Your task to perform on an android device: toggle priority inbox in the gmail app Image 0: 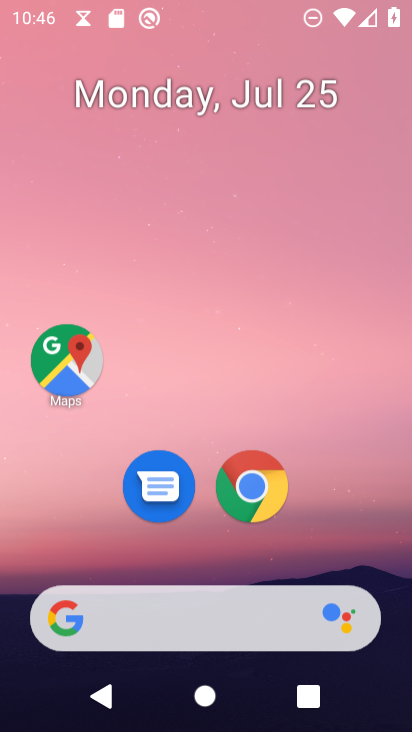
Step 0: drag from (268, 217) to (324, 6)
Your task to perform on an android device: toggle priority inbox in the gmail app Image 1: 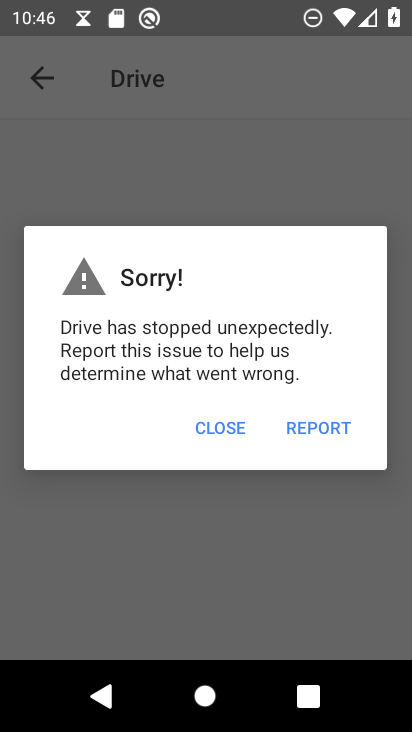
Step 1: click (239, 419)
Your task to perform on an android device: toggle priority inbox in the gmail app Image 2: 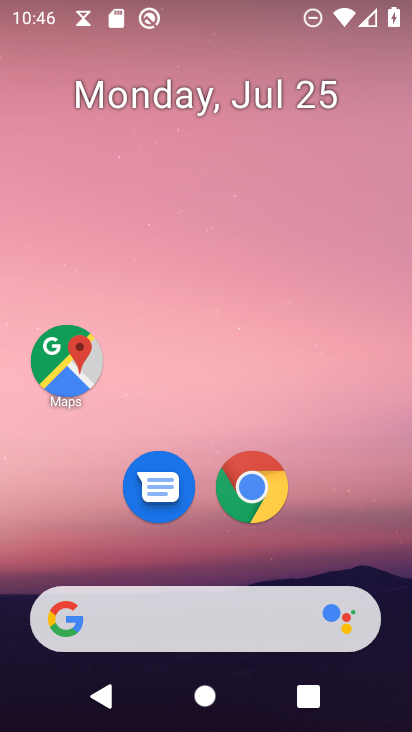
Step 2: drag from (200, 520) to (225, 1)
Your task to perform on an android device: toggle priority inbox in the gmail app Image 3: 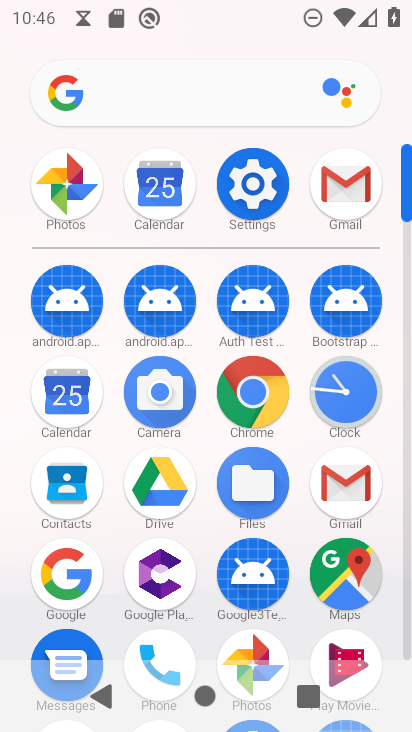
Step 3: click (348, 181)
Your task to perform on an android device: toggle priority inbox in the gmail app Image 4: 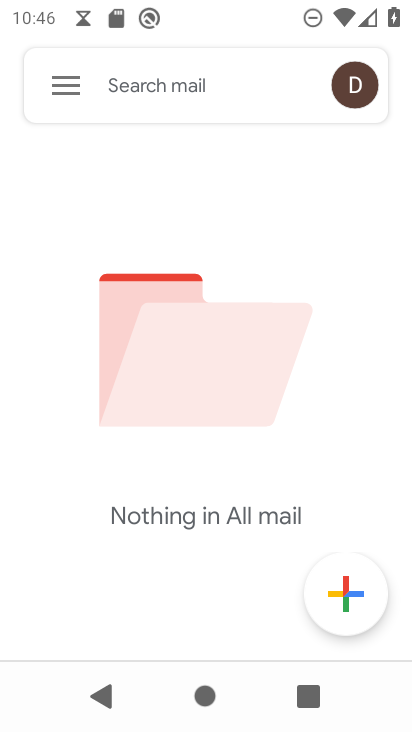
Step 4: click (75, 88)
Your task to perform on an android device: toggle priority inbox in the gmail app Image 5: 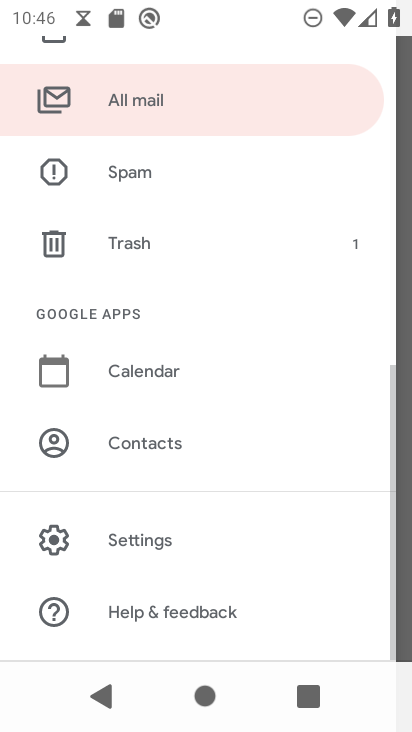
Step 5: click (147, 549)
Your task to perform on an android device: toggle priority inbox in the gmail app Image 6: 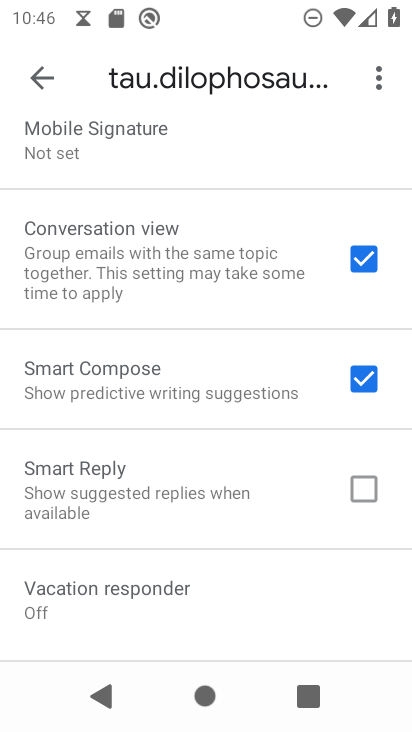
Step 6: drag from (186, 142) to (190, 731)
Your task to perform on an android device: toggle priority inbox in the gmail app Image 7: 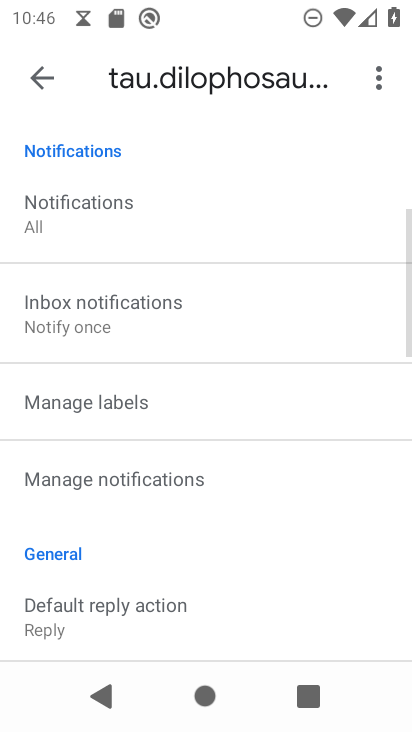
Step 7: drag from (184, 295) to (184, 611)
Your task to perform on an android device: toggle priority inbox in the gmail app Image 8: 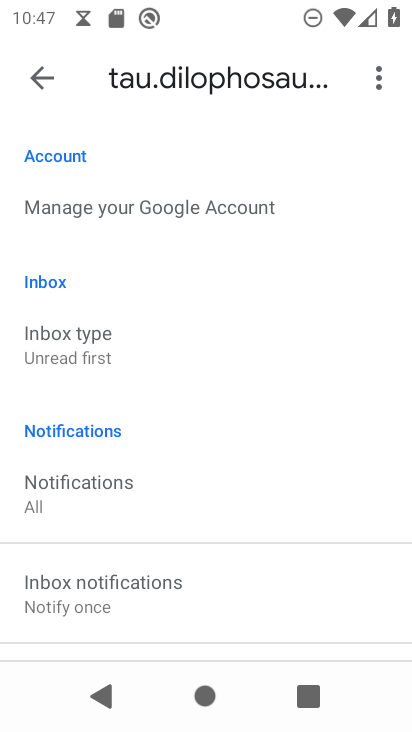
Step 8: click (119, 329)
Your task to perform on an android device: toggle priority inbox in the gmail app Image 9: 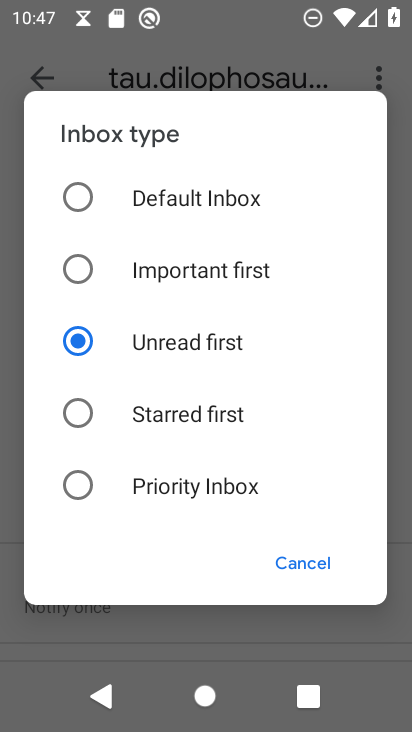
Step 9: click (86, 487)
Your task to perform on an android device: toggle priority inbox in the gmail app Image 10: 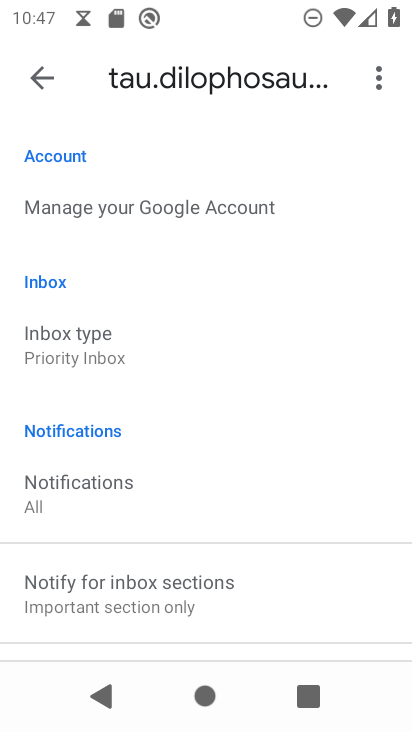
Step 10: task complete